Your task to perform on an android device: Open Maps and search for coffee Image 0: 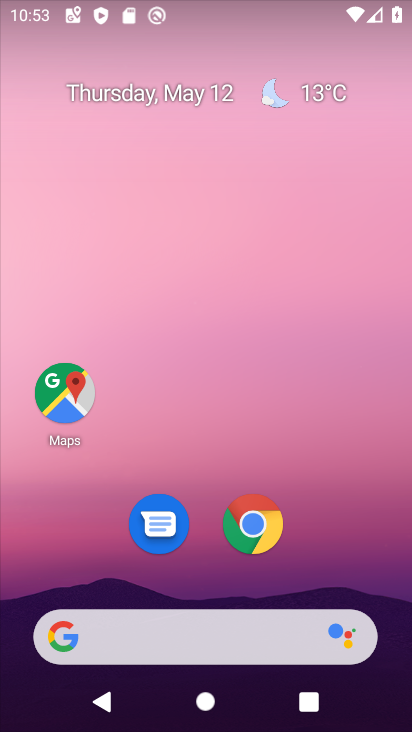
Step 0: click (68, 374)
Your task to perform on an android device: Open Maps and search for coffee Image 1: 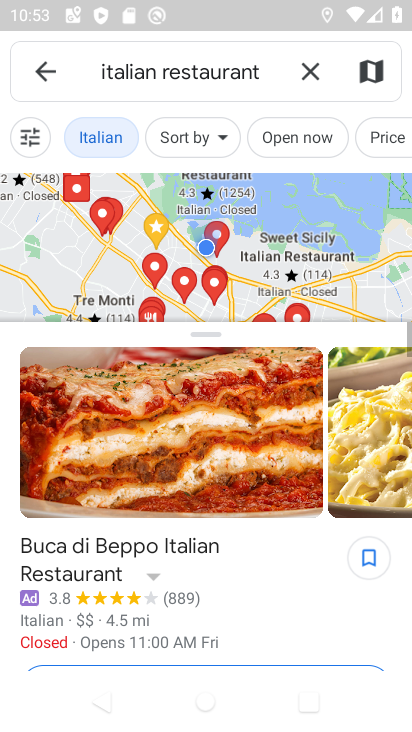
Step 1: click (314, 65)
Your task to perform on an android device: Open Maps and search for coffee Image 2: 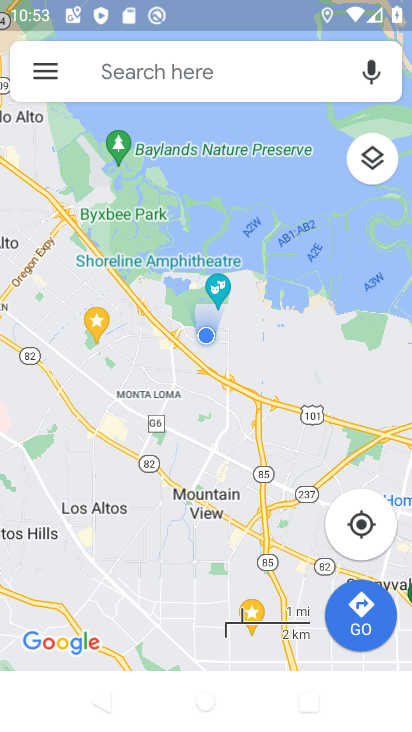
Step 2: click (166, 60)
Your task to perform on an android device: Open Maps and search for coffee Image 3: 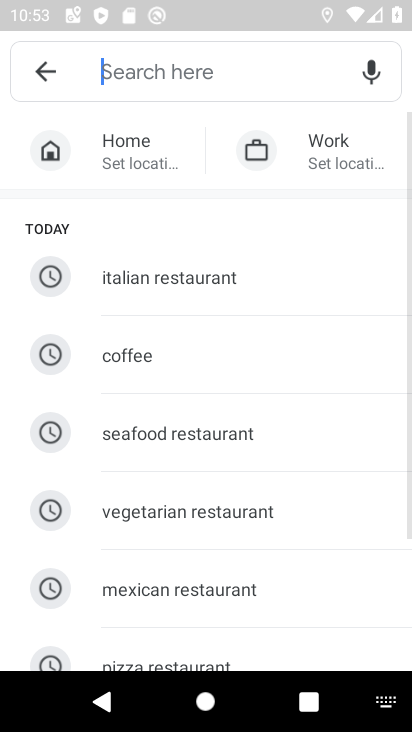
Step 3: click (137, 343)
Your task to perform on an android device: Open Maps and search for coffee Image 4: 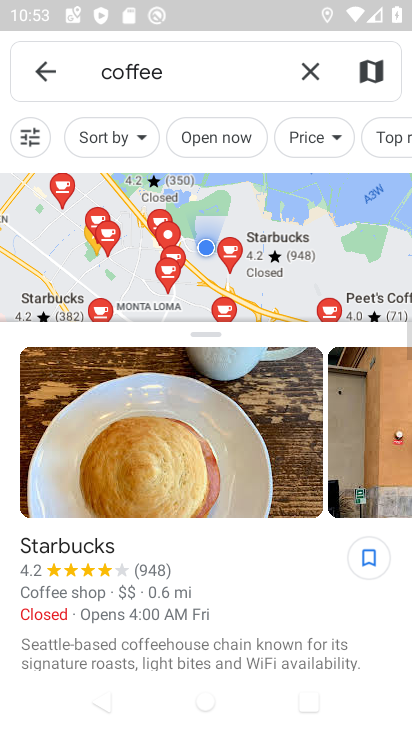
Step 4: task complete